Your task to perform on an android device: Show me the alarms in the clock app Image 0: 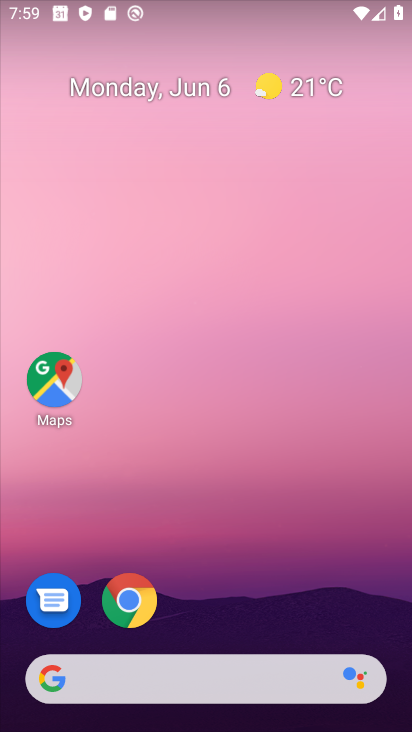
Step 0: drag from (193, 592) to (371, 1)
Your task to perform on an android device: Show me the alarms in the clock app Image 1: 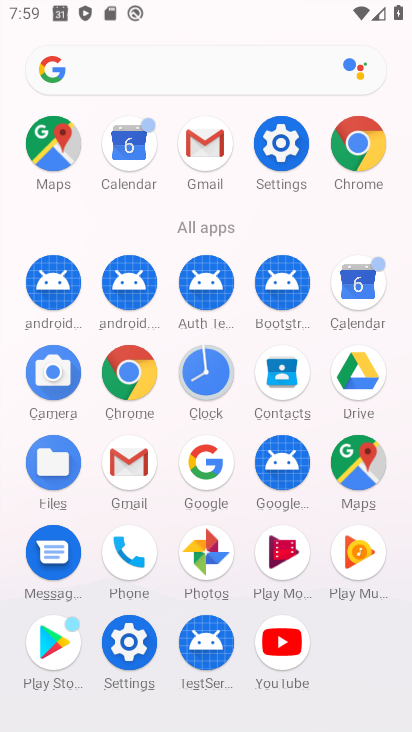
Step 1: click (214, 399)
Your task to perform on an android device: Show me the alarms in the clock app Image 2: 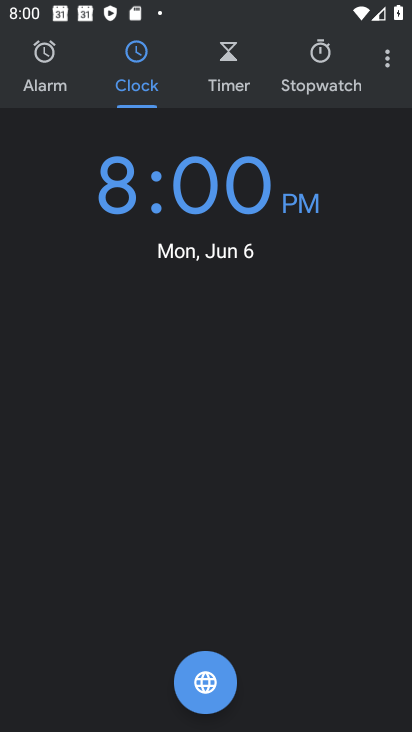
Step 2: click (44, 52)
Your task to perform on an android device: Show me the alarms in the clock app Image 3: 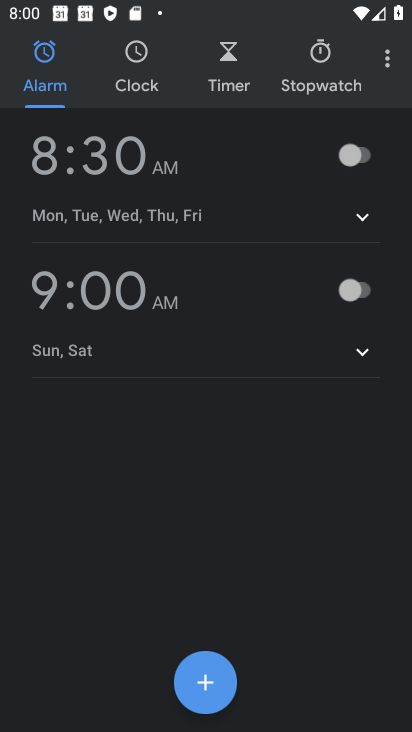
Step 3: task complete